Your task to perform on an android device: toggle location history Image 0: 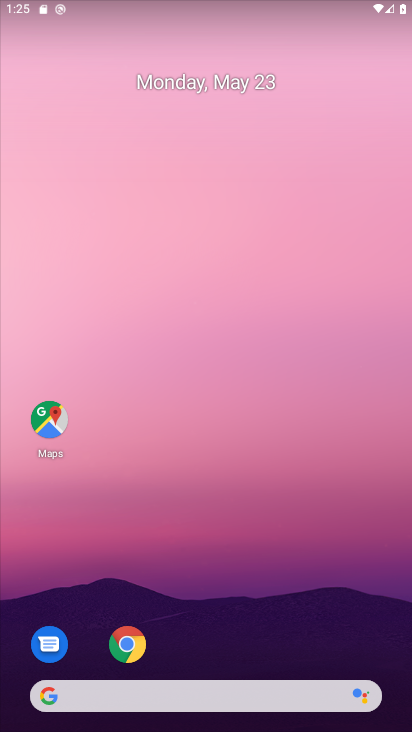
Step 0: drag from (219, 638) to (178, 182)
Your task to perform on an android device: toggle location history Image 1: 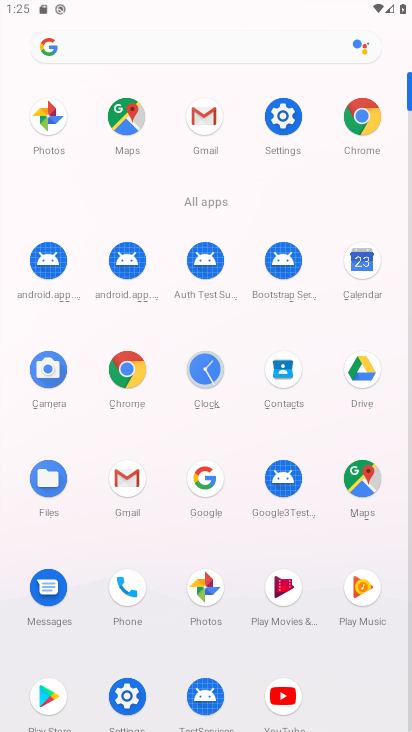
Step 1: click (278, 126)
Your task to perform on an android device: toggle location history Image 2: 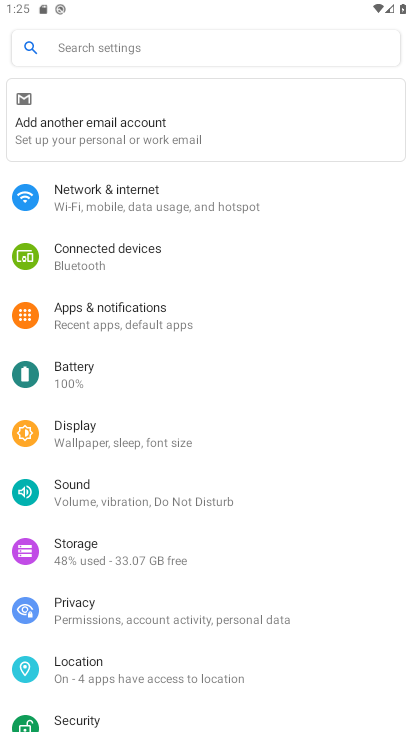
Step 2: click (83, 681)
Your task to perform on an android device: toggle location history Image 3: 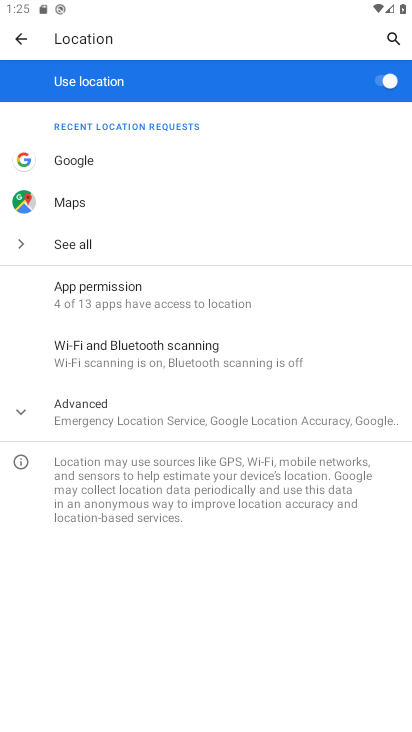
Step 3: click (60, 424)
Your task to perform on an android device: toggle location history Image 4: 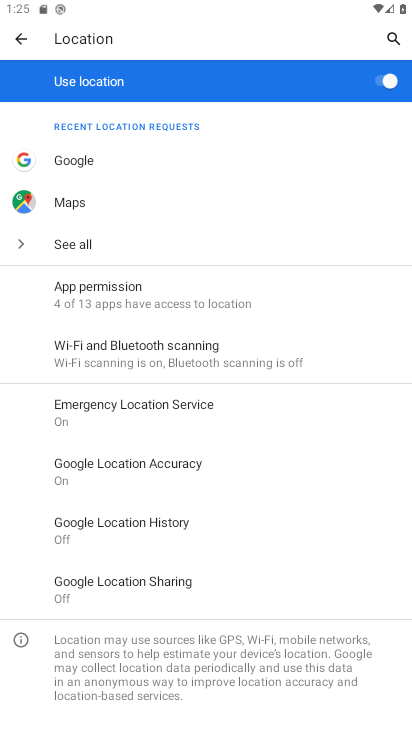
Step 4: click (105, 516)
Your task to perform on an android device: toggle location history Image 5: 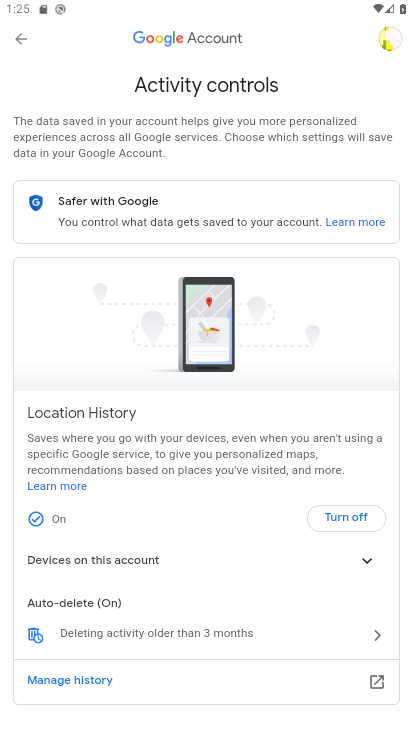
Step 5: click (315, 517)
Your task to perform on an android device: toggle location history Image 6: 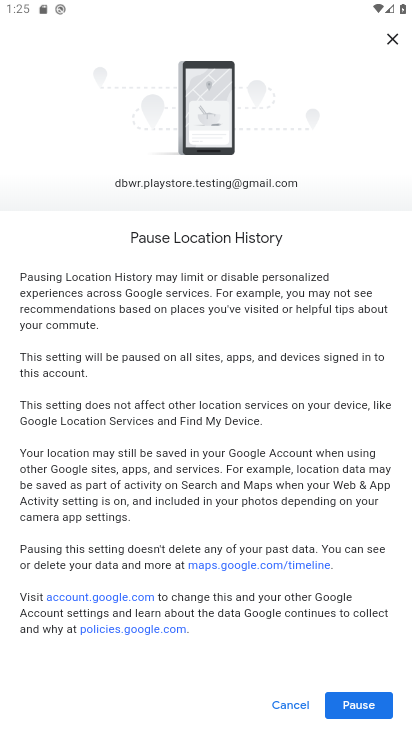
Step 6: click (339, 716)
Your task to perform on an android device: toggle location history Image 7: 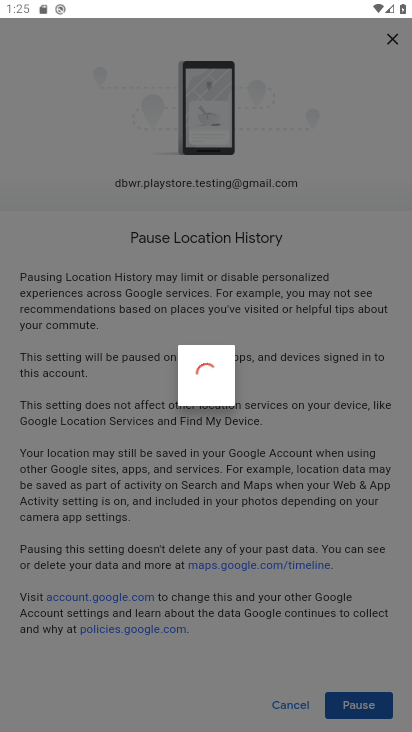
Step 7: click (354, 715)
Your task to perform on an android device: toggle location history Image 8: 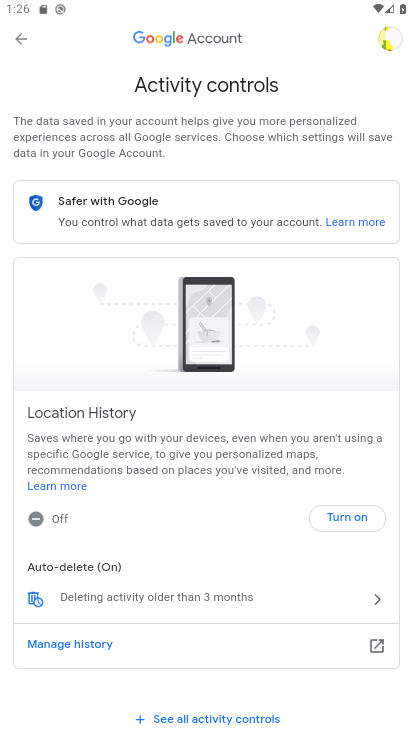
Step 8: task complete